Your task to perform on an android device: see tabs open on other devices in the chrome app Image 0: 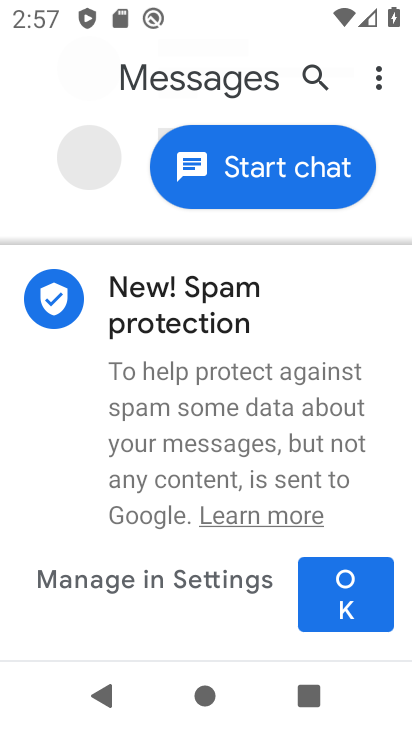
Step 0: press home button
Your task to perform on an android device: see tabs open on other devices in the chrome app Image 1: 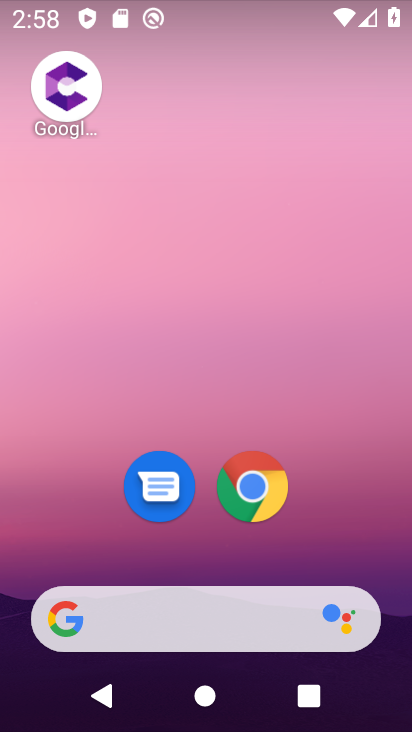
Step 1: click (269, 506)
Your task to perform on an android device: see tabs open on other devices in the chrome app Image 2: 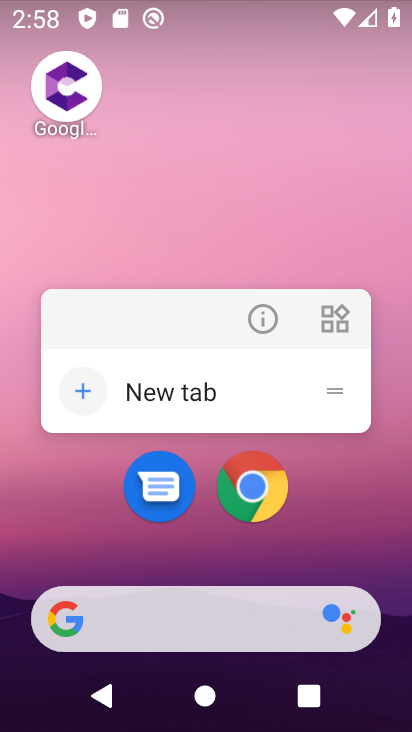
Step 2: click (271, 324)
Your task to perform on an android device: see tabs open on other devices in the chrome app Image 3: 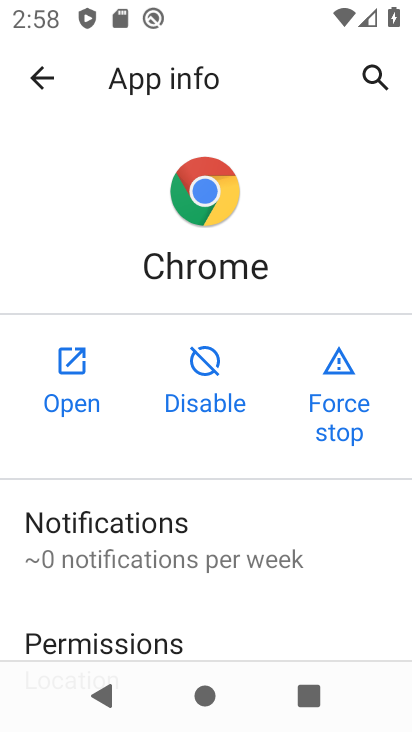
Step 3: click (90, 389)
Your task to perform on an android device: see tabs open on other devices in the chrome app Image 4: 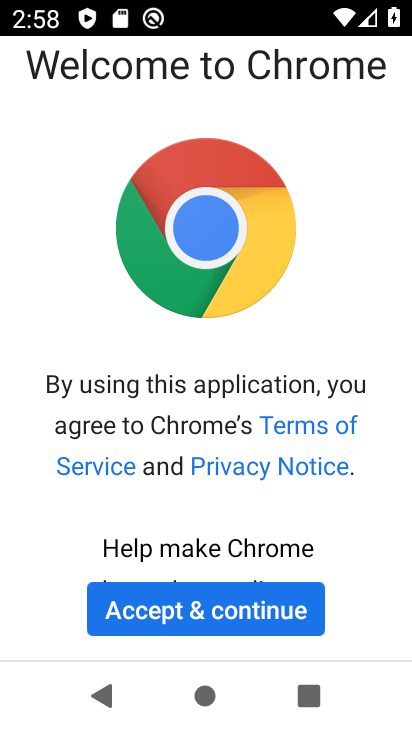
Step 4: click (217, 630)
Your task to perform on an android device: see tabs open on other devices in the chrome app Image 5: 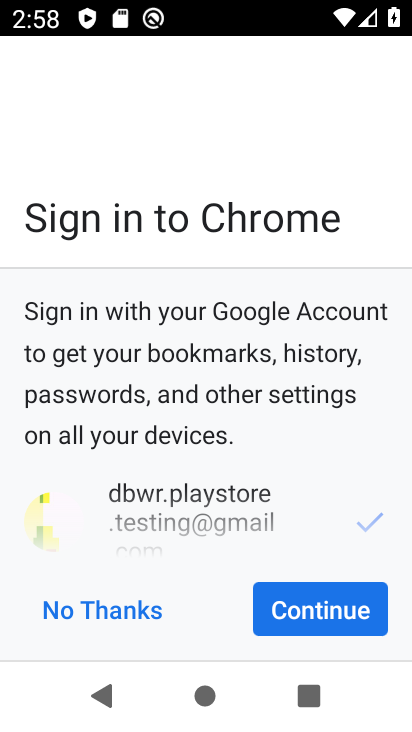
Step 5: click (283, 608)
Your task to perform on an android device: see tabs open on other devices in the chrome app Image 6: 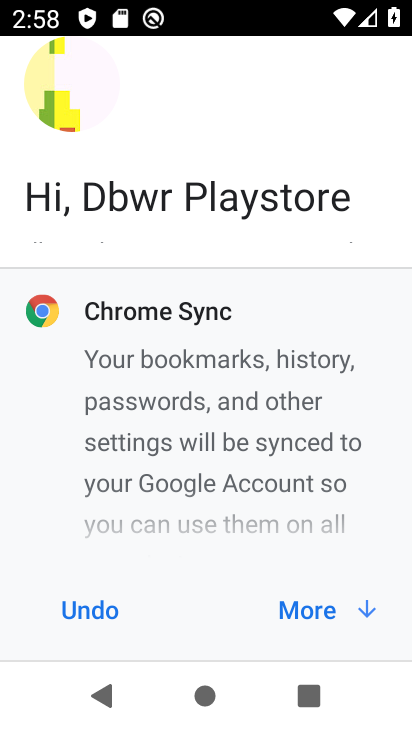
Step 6: click (318, 613)
Your task to perform on an android device: see tabs open on other devices in the chrome app Image 7: 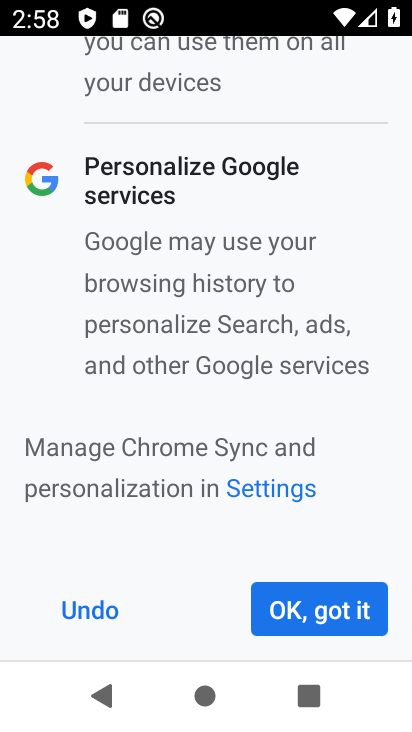
Step 7: click (318, 612)
Your task to perform on an android device: see tabs open on other devices in the chrome app Image 8: 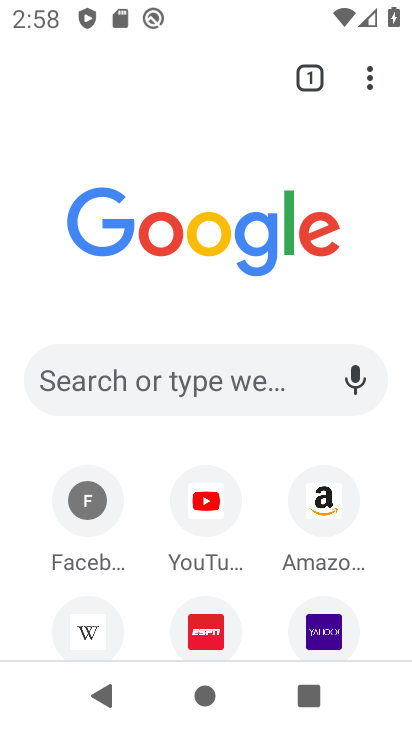
Step 8: click (367, 99)
Your task to perform on an android device: see tabs open on other devices in the chrome app Image 9: 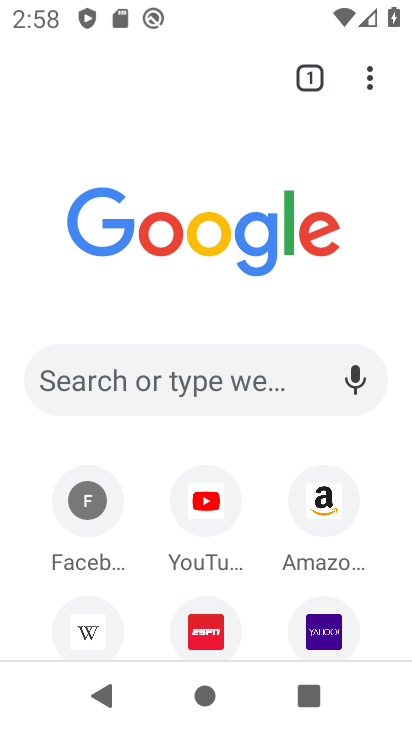
Step 9: click (366, 80)
Your task to perform on an android device: see tabs open on other devices in the chrome app Image 10: 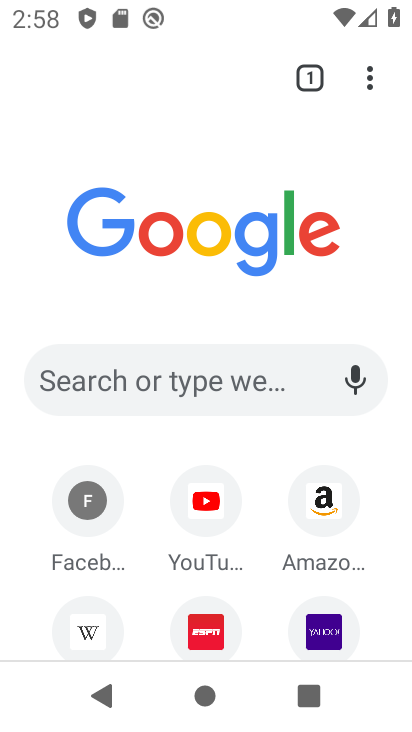
Step 10: click (372, 85)
Your task to perform on an android device: see tabs open on other devices in the chrome app Image 11: 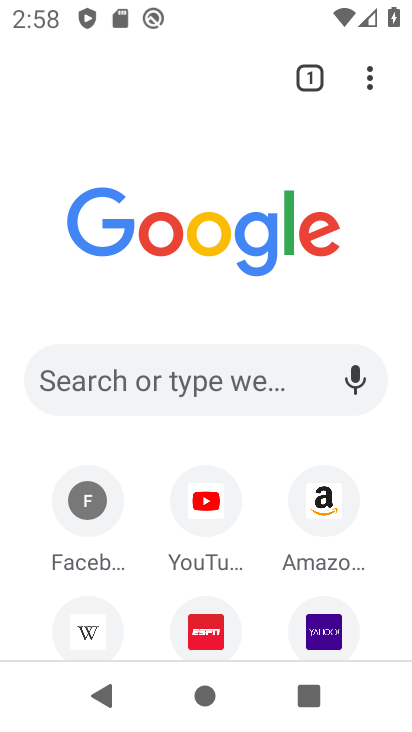
Step 11: click (372, 85)
Your task to perform on an android device: see tabs open on other devices in the chrome app Image 12: 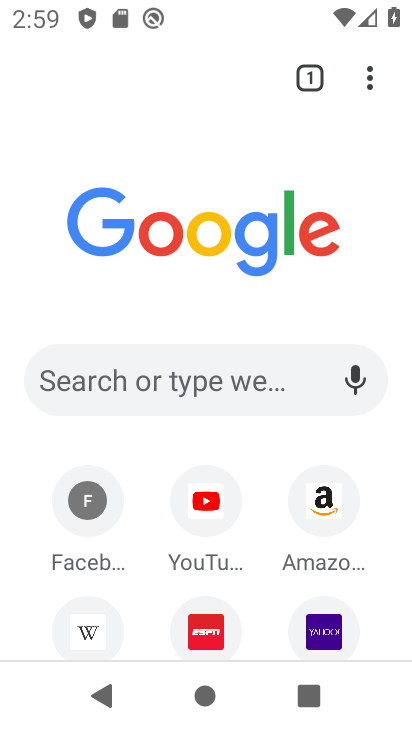
Step 12: click (371, 79)
Your task to perform on an android device: see tabs open on other devices in the chrome app Image 13: 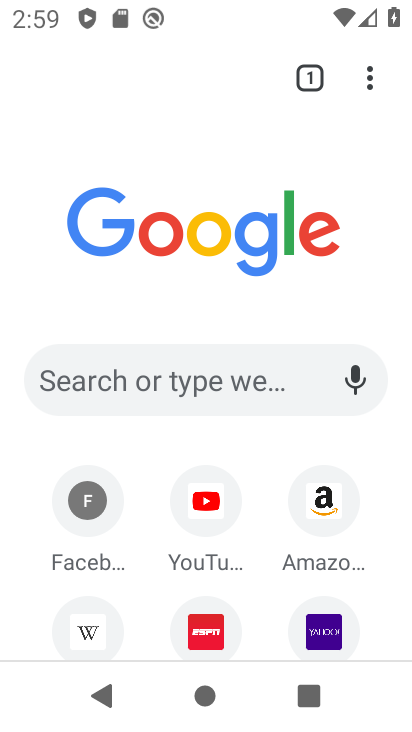
Step 13: click (371, 79)
Your task to perform on an android device: see tabs open on other devices in the chrome app Image 14: 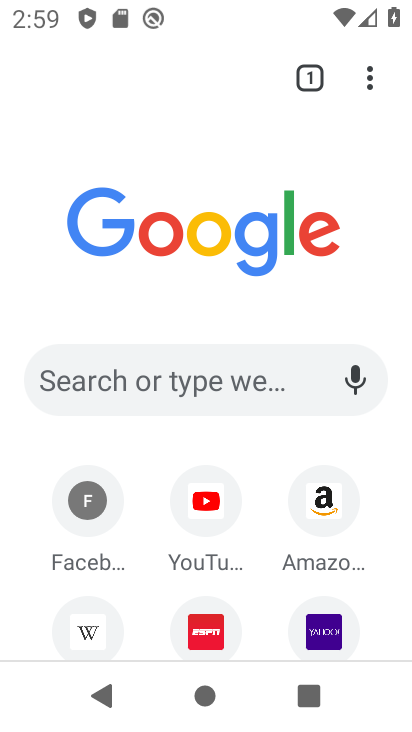
Step 14: click (338, 264)
Your task to perform on an android device: see tabs open on other devices in the chrome app Image 15: 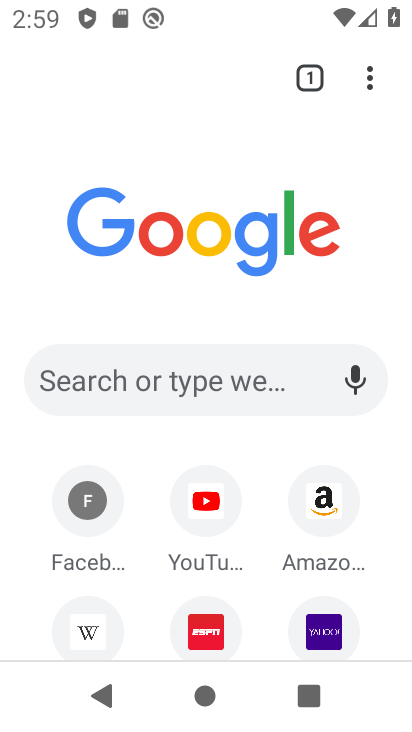
Step 15: click (367, 80)
Your task to perform on an android device: see tabs open on other devices in the chrome app Image 16: 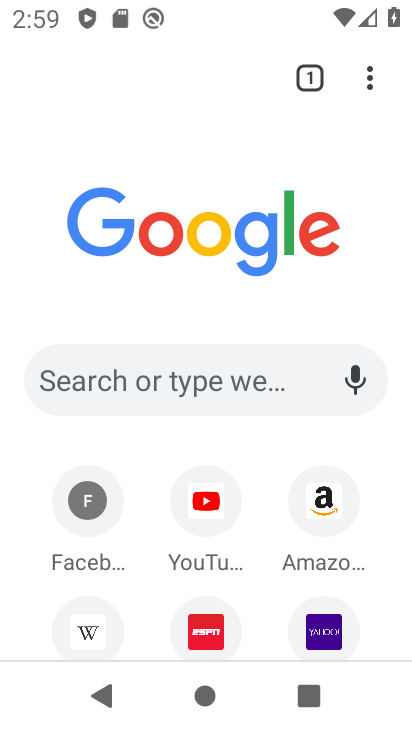
Step 16: click (362, 86)
Your task to perform on an android device: see tabs open on other devices in the chrome app Image 17: 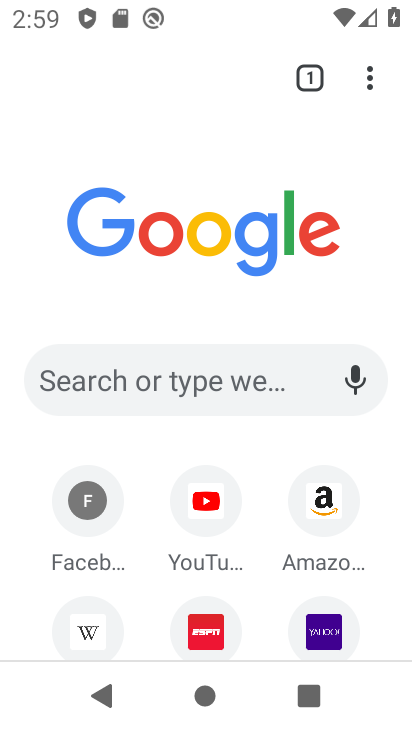
Step 17: click (370, 80)
Your task to perform on an android device: see tabs open on other devices in the chrome app Image 18: 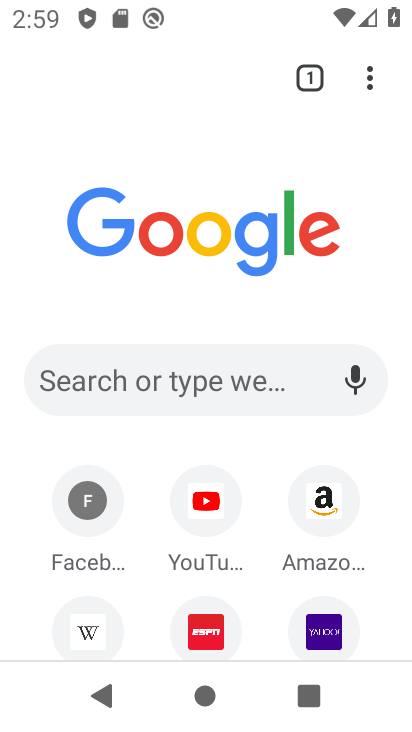
Step 18: click (371, 81)
Your task to perform on an android device: see tabs open on other devices in the chrome app Image 19: 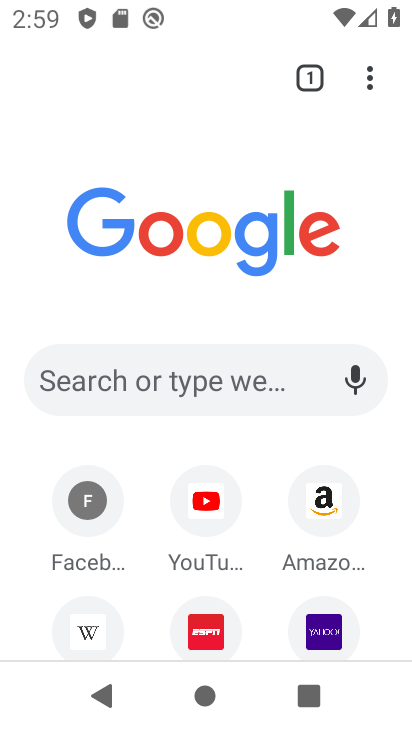
Step 19: click (366, 83)
Your task to perform on an android device: see tabs open on other devices in the chrome app Image 20: 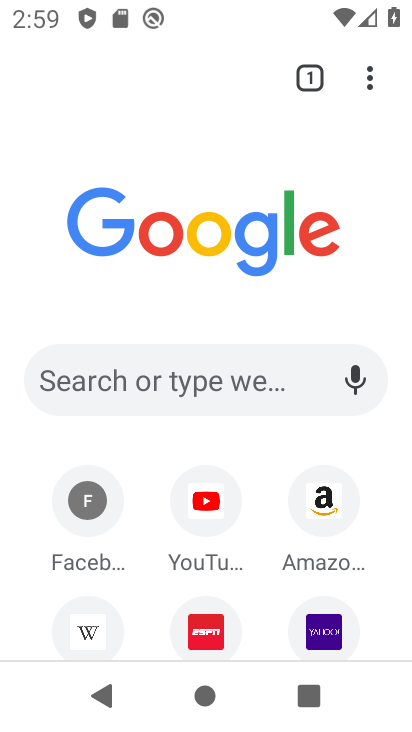
Step 20: click (370, 79)
Your task to perform on an android device: see tabs open on other devices in the chrome app Image 21: 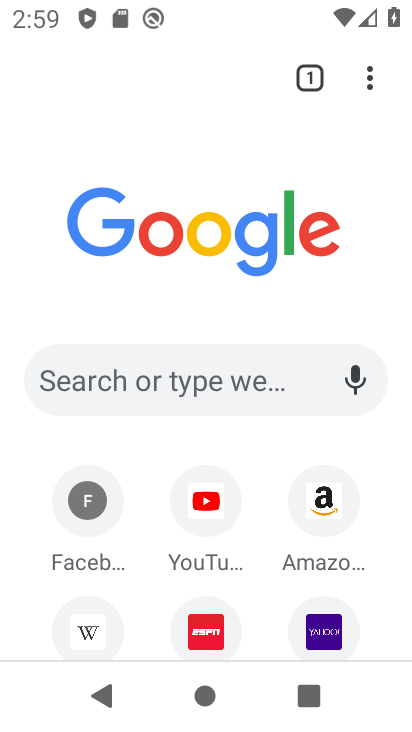
Step 21: click (370, 79)
Your task to perform on an android device: see tabs open on other devices in the chrome app Image 22: 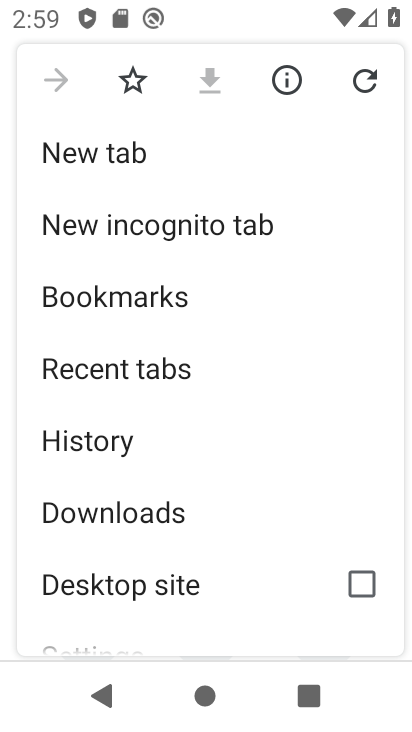
Step 22: drag from (193, 271) to (229, 484)
Your task to perform on an android device: see tabs open on other devices in the chrome app Image 23: 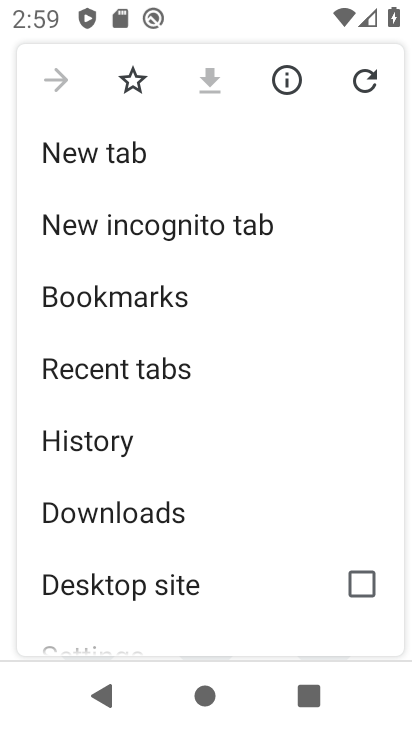
Step 23: drag from (221, 471) to (202, 253)
Your task to perform on an android device: see tabs open on other devices in the chrome app Image 24: 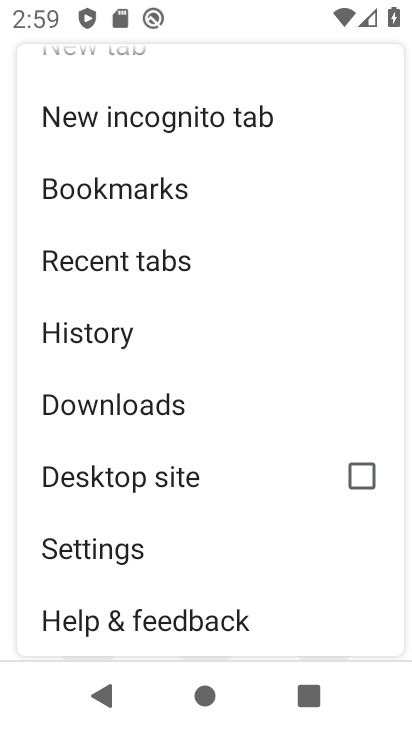
Step 24: drag from (173, 238) to (205, 576)
Your task to perform on an android device: see tabs open on other devices in the chrome app Image 25: 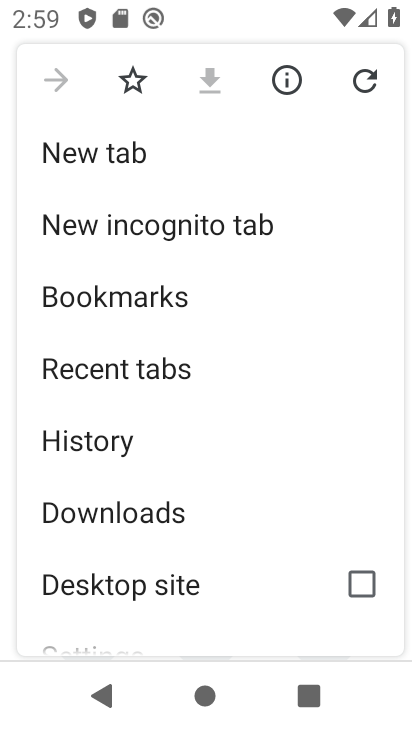
Step 25: click (176, 375)
Your task to perform on an android device: see tabs open on other devices in the chrome app Image 26: 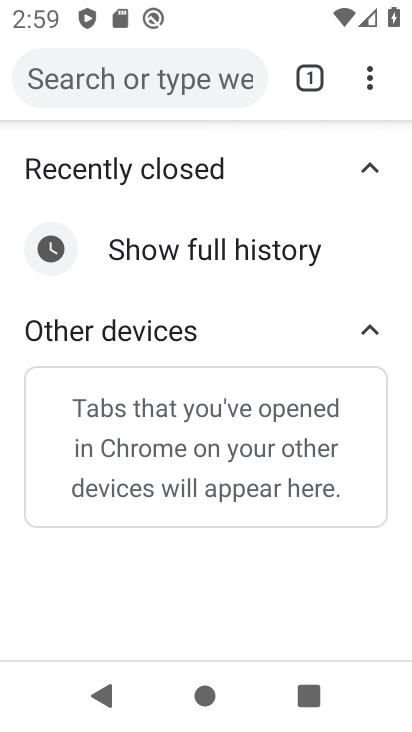
Step 26: click (306, 338)
Your task to perform on an android device: see tabs open on other devices in the chrome app Image 27: 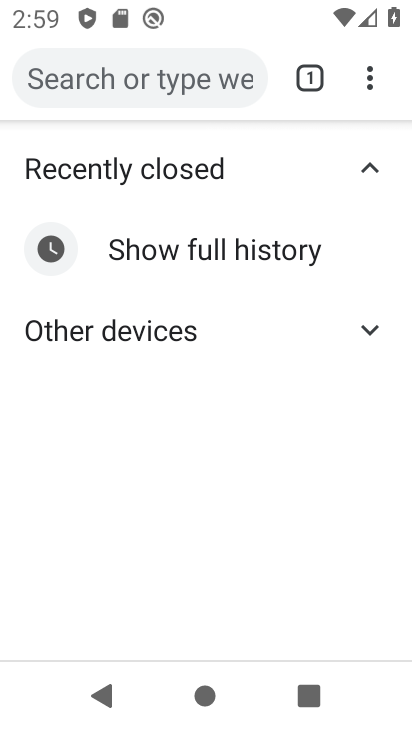
Step 27: click (316, 349)
Your task to perform on an android device: see tabs open on other devices in the chrome app Image 28: 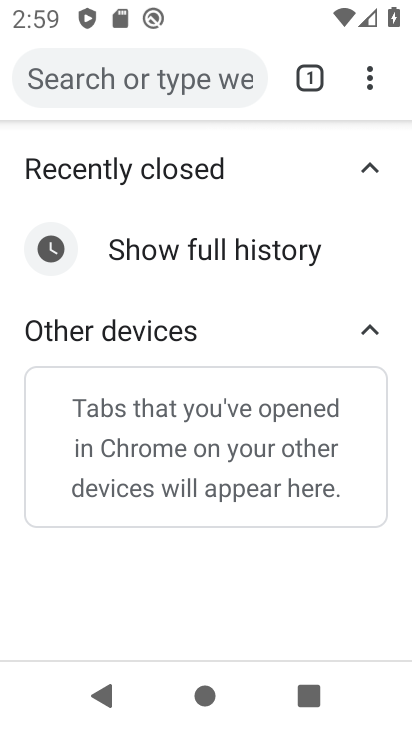
Step 28: click (278, 424)
Your task to perform on an android device: see tabs open on other devices in the chrome app Image 29: 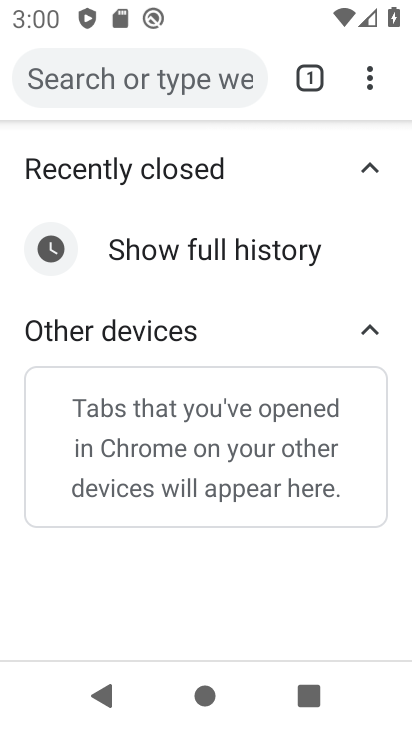
Step 29: task complete